Your task to perform on an android device: turn off priority inbox in the gmail app Image 0: 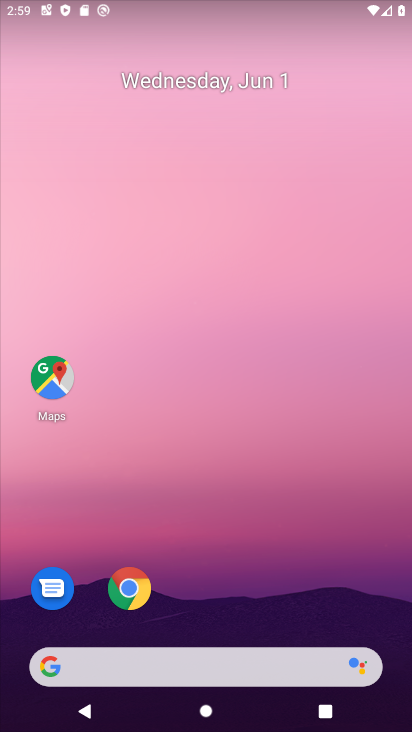
Step 0: drag from (171, 645) to (274, 126)
Your task to perform on an android device: turn off priority inbox in the gmail app Image 1: 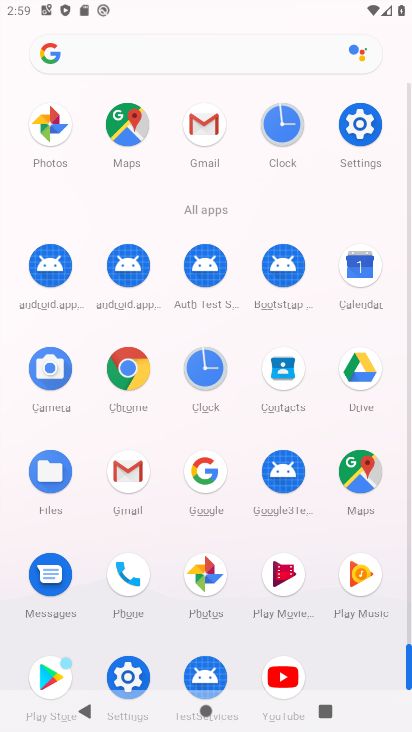
Step 1: click (127, 491)
Your task to perform on an android device: turn off priority inbox in the gmail app Image 2: 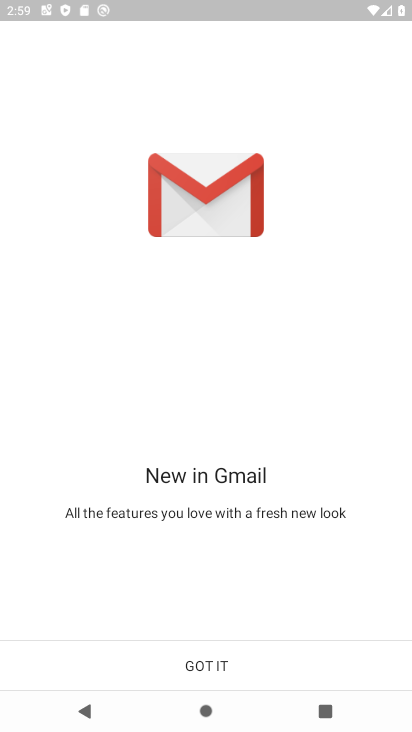
Step 2: click (220, 663)
Your task to perform on an android device: turn off priority inbox in the gmail app Image 3: 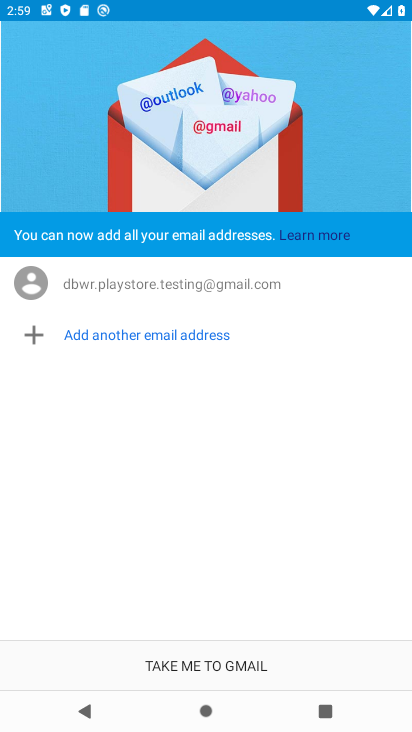
Step 3: click (229, 659)
Your task to perform on an android device: turn off priority inbox in the gmail app Image 4: 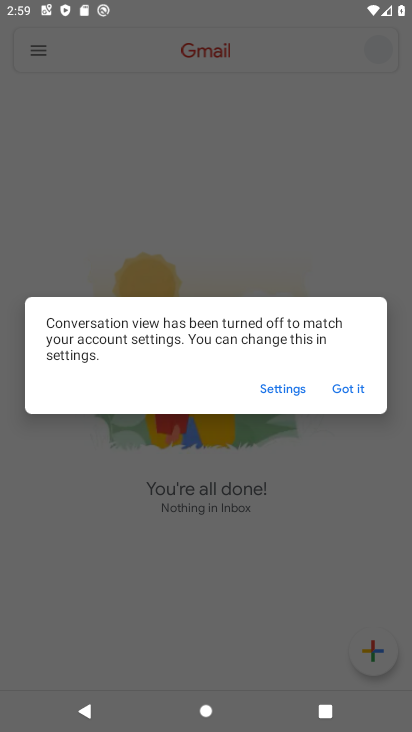
Step 4: click (349, 405)
Your task to perform on an android device: turn off priority inbox in the gmail app Image 5: 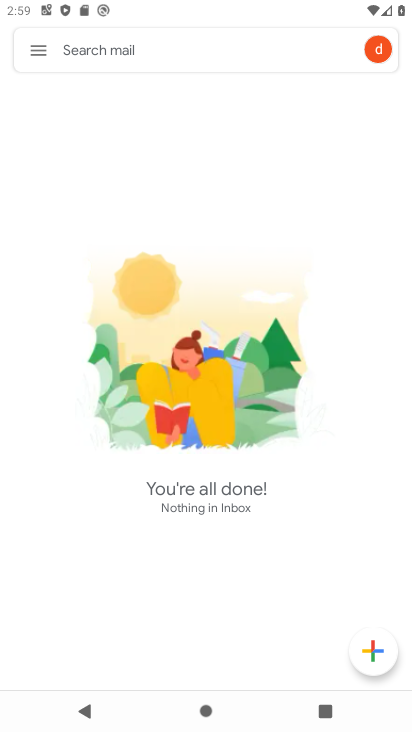
Step 5: click (54, 63)
Your task to perform on an android device: turn off priority inbox in the gmail app Image 6: 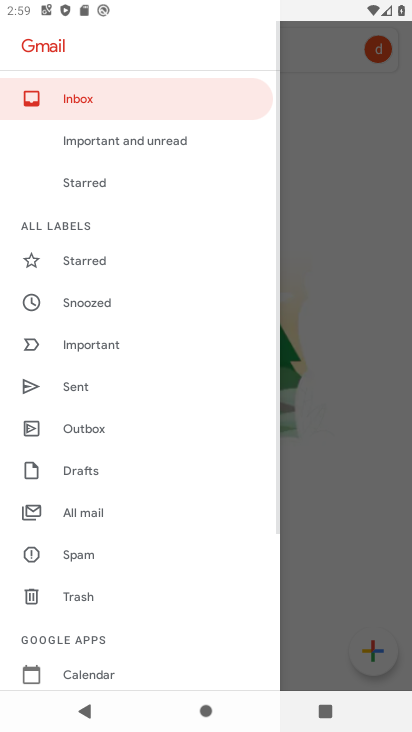
Step 6: drag from (181, 625) to (248, 215)
Your task to perform on an android device: turn off priority inbox in the gmail app Image 7: 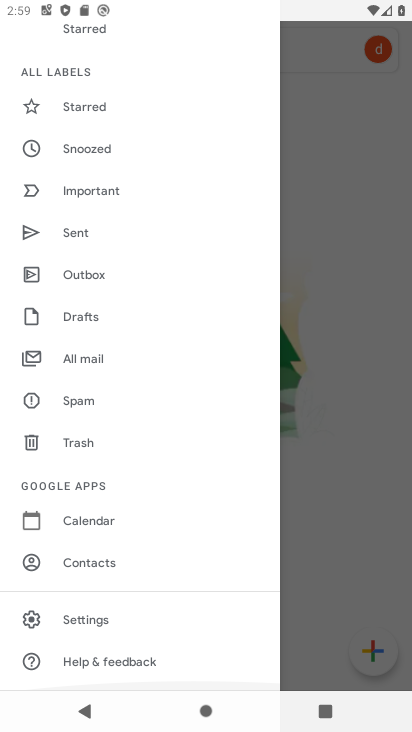
Step 7: click (148, 630)
Your task to perform on an android device: turn off priority inbox in the gmail app Image 8: 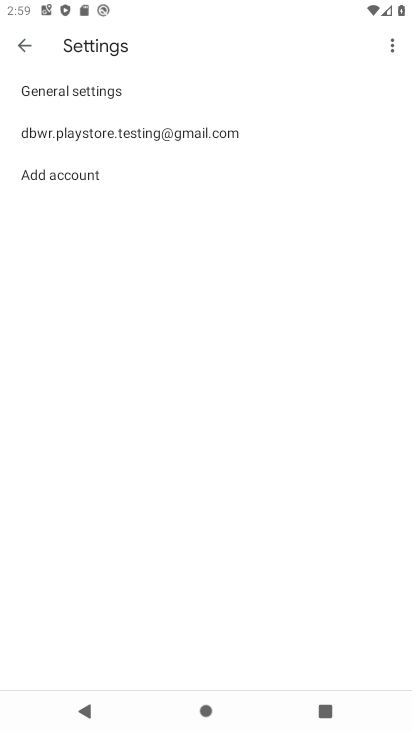
Step 8: click (263, 151)
Your task to perform on an android device: turn off priority inbox in the gmail app Image 9: 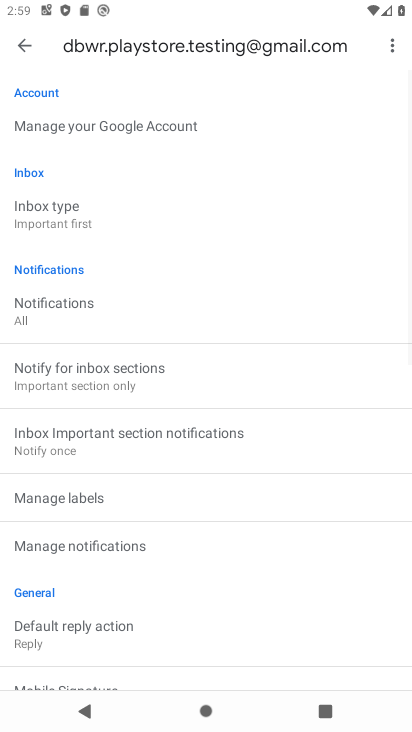
Step 9: drag from (167, 598) to (202, 589)
Your task to perform on an android device: turn off priority inbox in the gmail app Image 10: 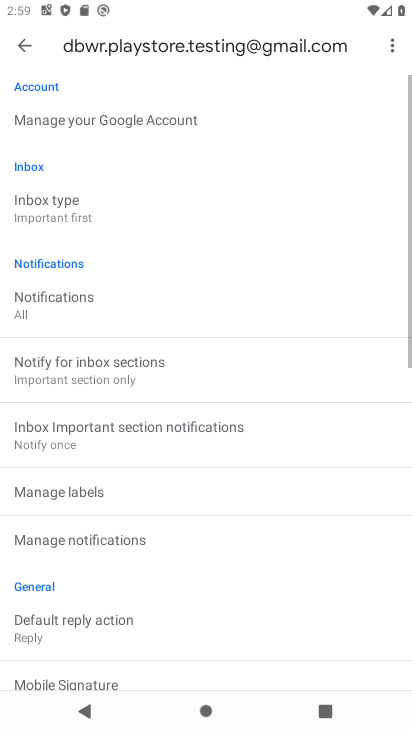
Step 10: click (119, 222)
Your task to perform on an android device: turn off priority inbox in the gmail app Image 11: 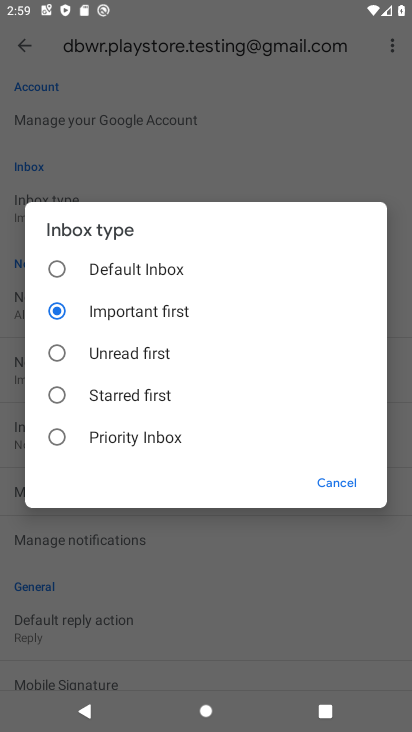
Step 11: task complete